Your task to perform on an android device: Open Chrome and go to settings Image 0: 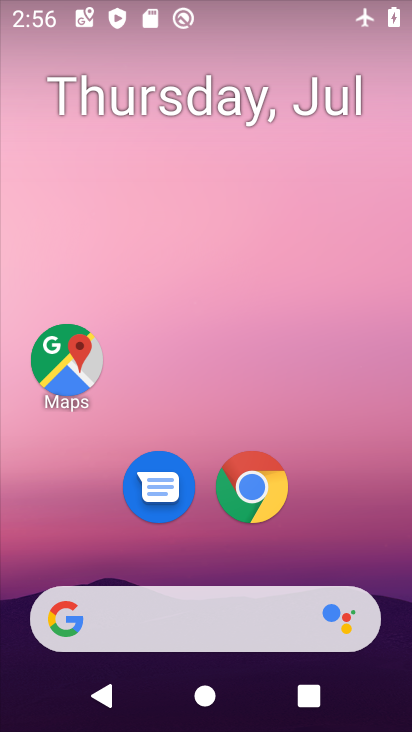
Step 0: drag from (368, 536) to (368, 182)
Your task to perform on an android device: Open Chrome and go to settings Image 1: 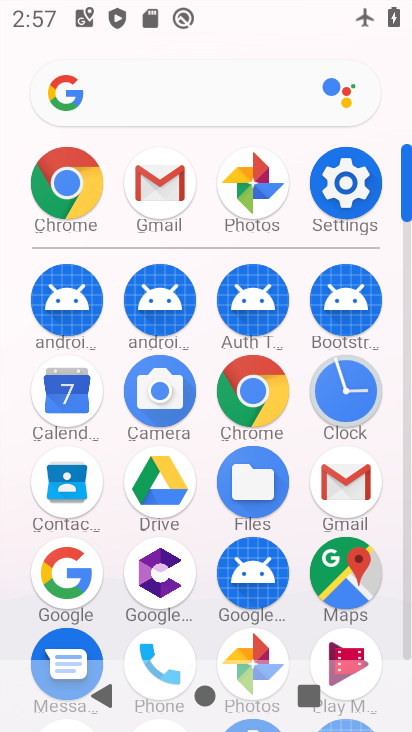
Step 1: click (267, 396)
Your task to perform on an android device: Open Chrome and go to settings Image 2: 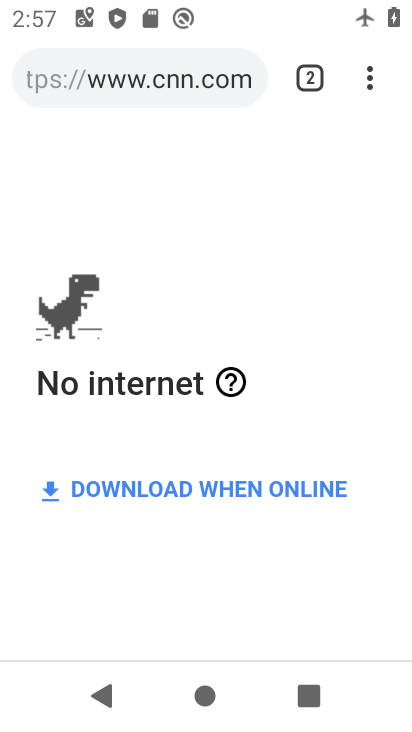
Step 2: click (366, 87)
Your task to perform on an android device: Open Chrome and go to settings Image 3: 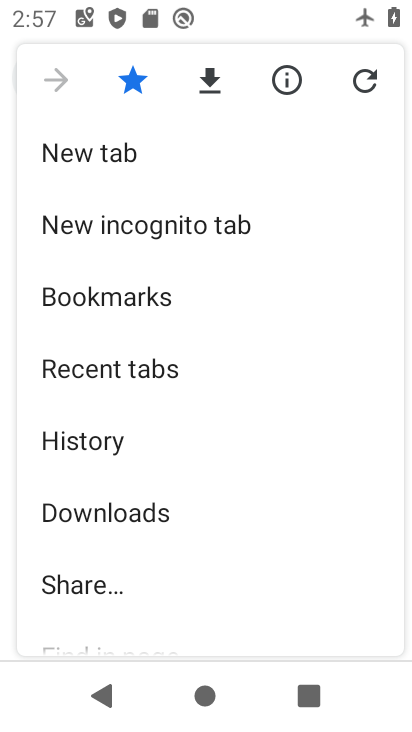
Step 3: drag from (340, 334) to (342, 256)
Your task to perform on an android device: Open Chrome and go to settings Image 4: 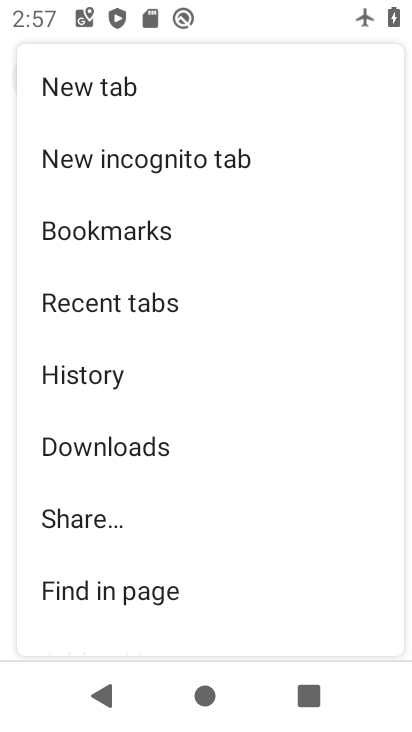
Step 4: drag from (311, 373) to (311, 271)
Your task to perform on an android device: Open Chrome and go to settings Image 5: 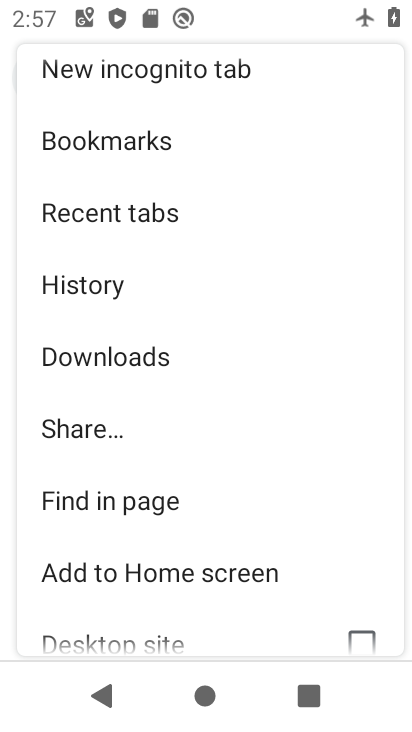
Step 5: drag from (302, 347) to (306, 301)
Your task to perform on an android device: Open Chrome and go to settings Image 6: 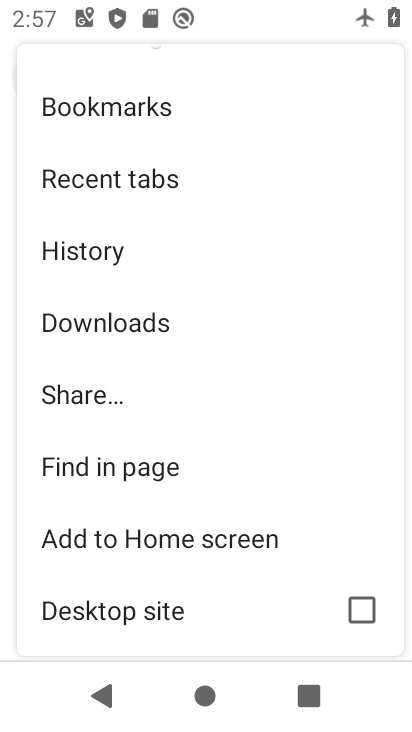
Step 6: drag from (245, 584) to (258, 401)
Your task to perform on an android device: Open Chrome and go to settings Image 7: 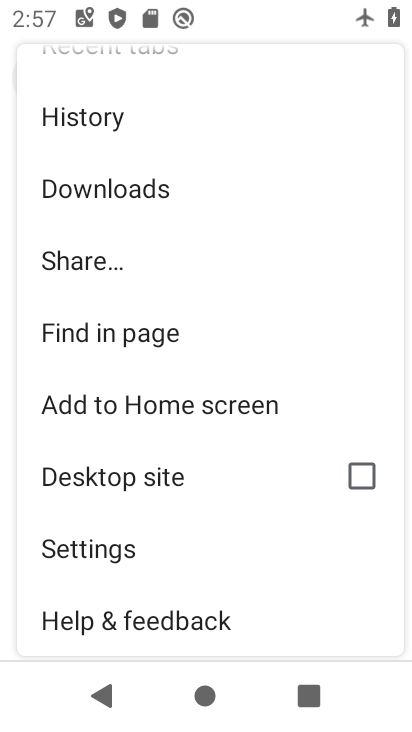
Step 7: click (165, 556)
Your task to perform on an android device: Open Chrome and go to settings Image 8: 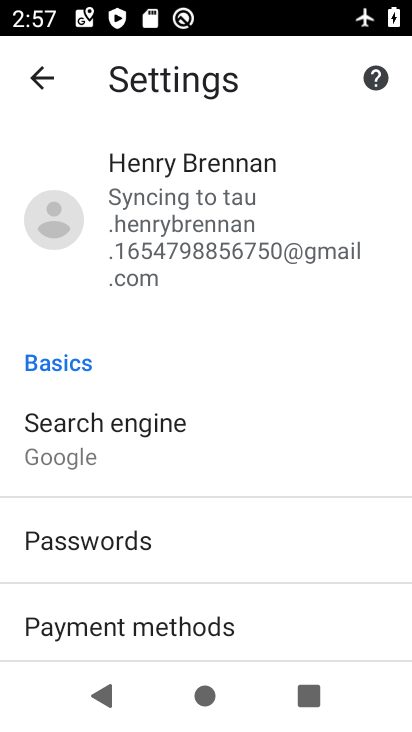
Step 8: task complete